Your task to perform on an android device: What's the weather? Image 0: 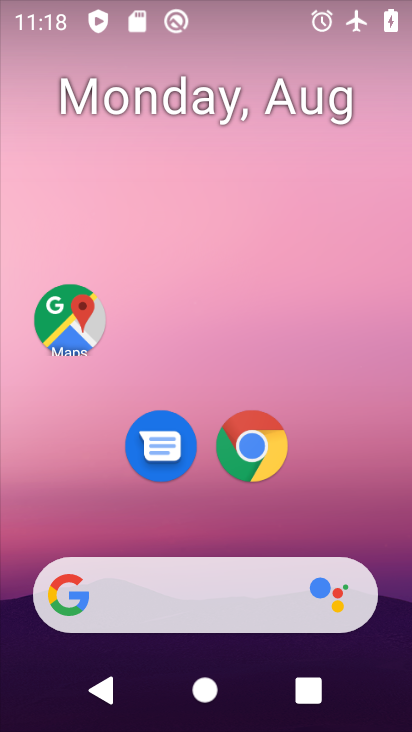
Step 0: click (220, 582)
Your task to perform on an android device: What's the weather? Image 1: 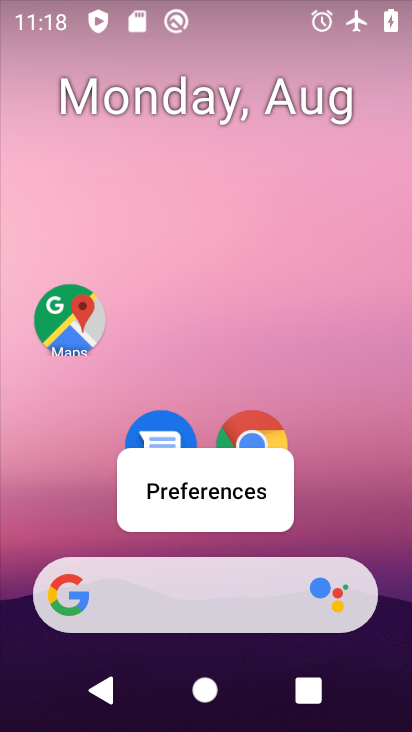
Step 1: click (167, 577)
Your task to perform on an android device: What's the weather? Image 2: 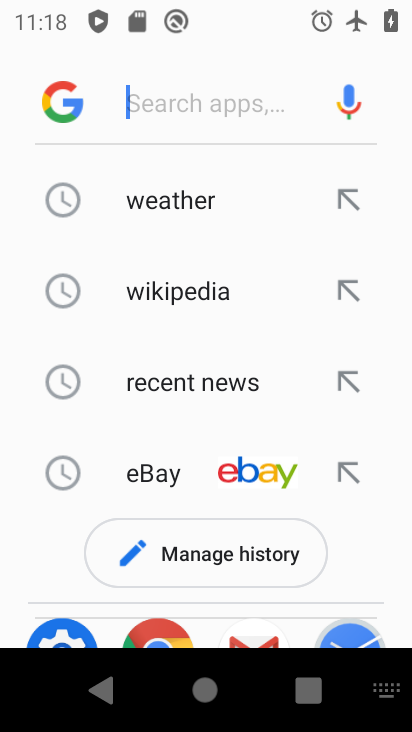
Step 2: click (218, 200)
Your task to perform on an android device: What's the weather? Image 3: 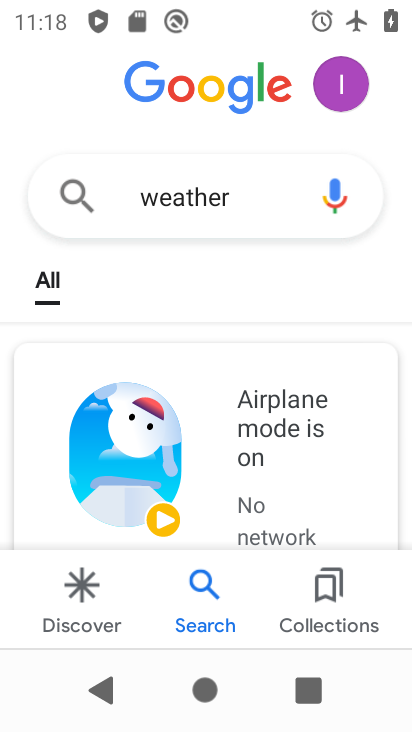
Step 3: task complete